Your task to perform on an android device: Open ESPN.com Image 0: 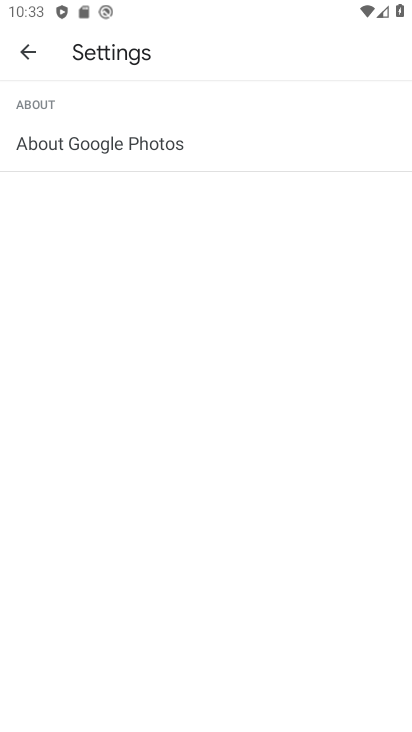
Step 0: task complete